Your task to perform on an android device: Open Google Maps and go to "Timeline" Image 0: 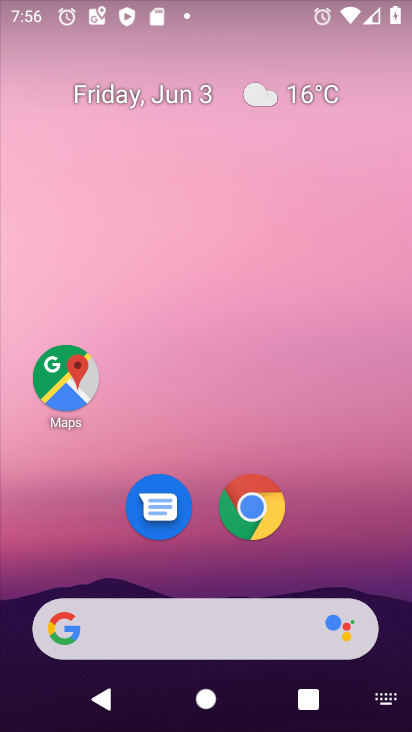
Step 0: drag from (331, 529) to (259, 41)
Your task to perform on an android device: Open Google Maps and go to "Timeline" Image 1: 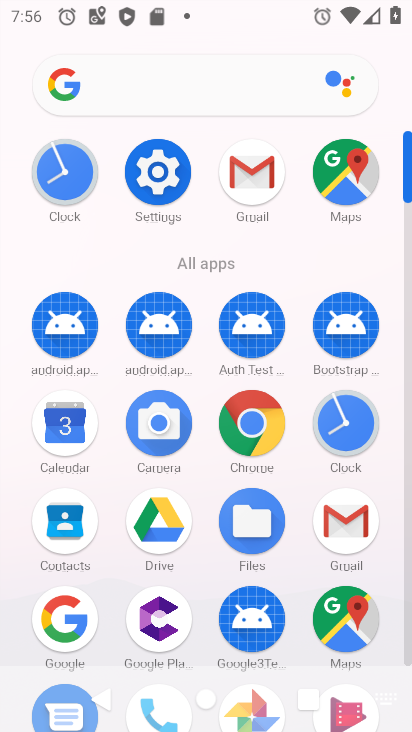
Step 1: click (335, 172)
Your task to perform on an android device: Open Google Maps and go to "Timeline" Image 2: 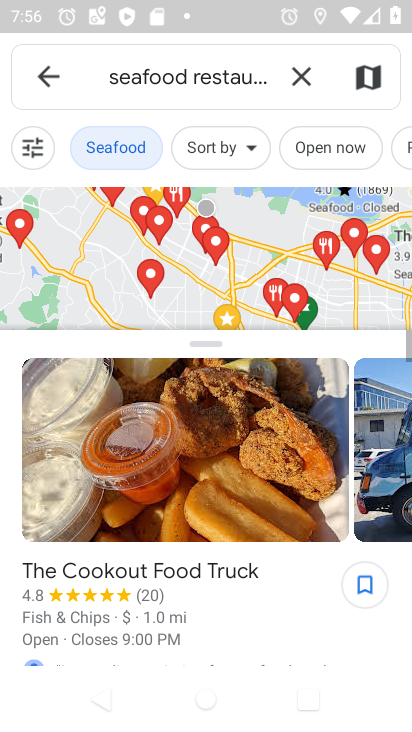
Step 2: click (54, 67)
Your task to perform on an android device: Open Google Maps and go to "Timeline" Image 3: 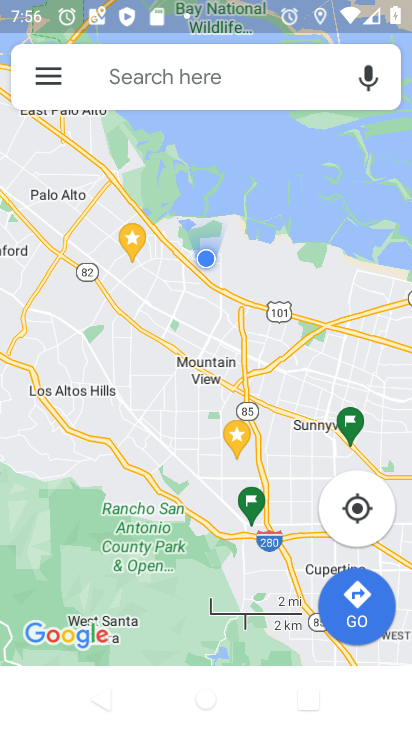
Step 3: click (57, 70)
Your task to perform on an android device: Open Google Maps and go to "Timeline" Image 4: 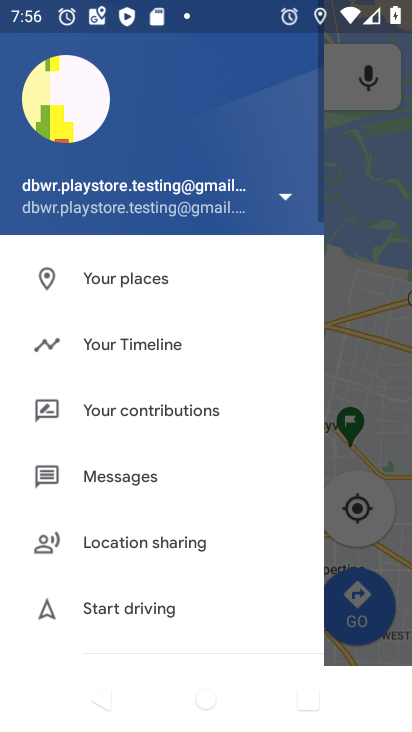
Step 4: click (114, 345)
Your task to perform on an android device: Open Google Maps and go to "Timeline" Image 5: 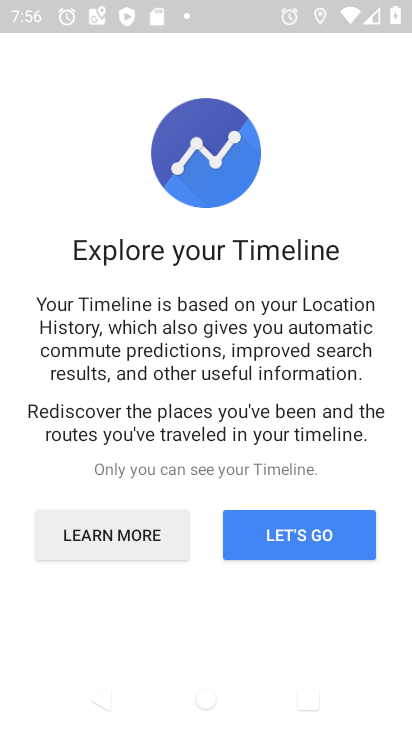
Step 5: click (273, 537)
Your task to perform on an android device: Open Google Maps and go to "Timeline" Image 6: 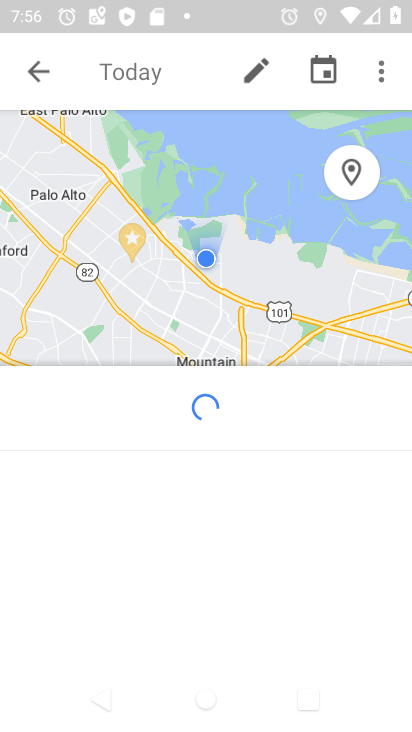
Step 6: task complete